Your task to perform on an android device: Open sound settings Image 0: 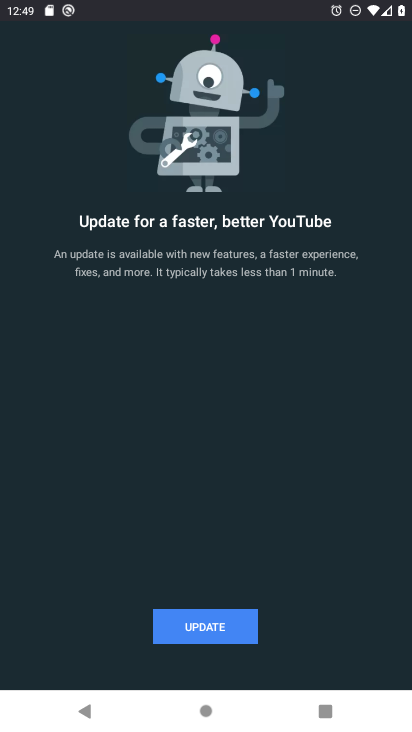
Step 0: press home button
Your task to perform on an android device: Open sound settings Image 1: 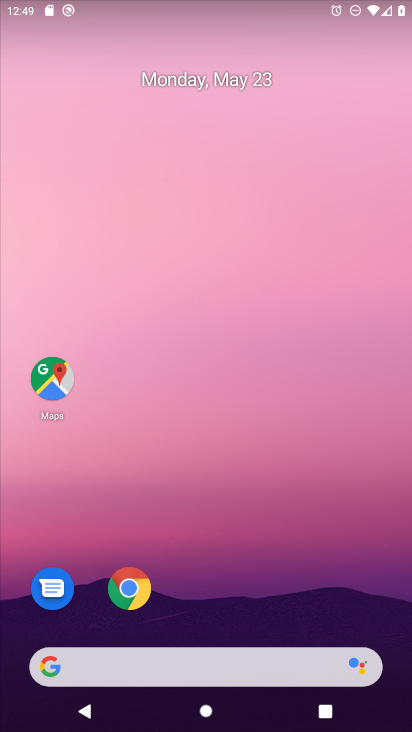
Step 1: drag from (277, 684) to (201, 145)
Your task to perform on an android device: Open sound settings Image 2: 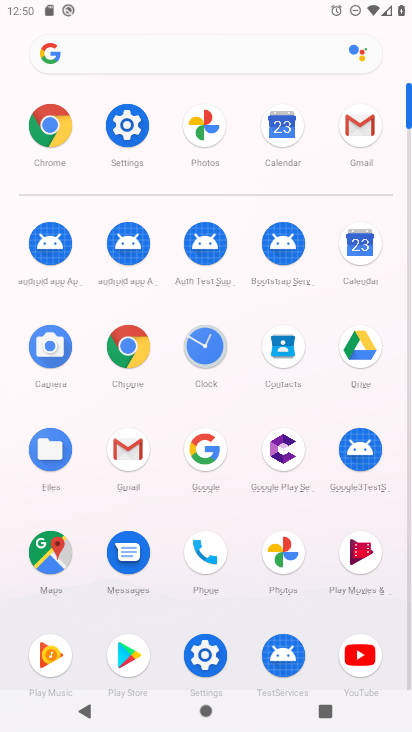
Step 2: click (202, 656)
Your task to perform on an android device: Open sound settings Image 3: 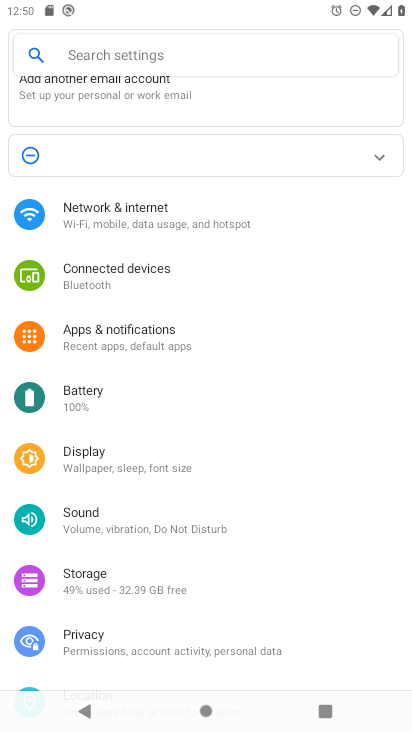
Step 3: click (113, 62)
Your task to perform on an android device: Open sound settings Image 4: 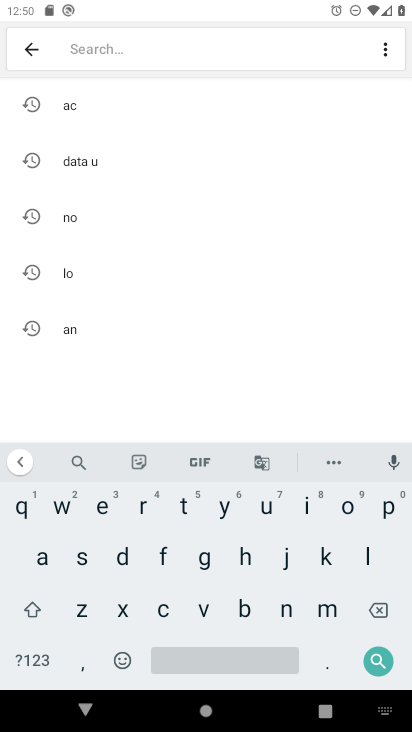
Step 4: click (79, 553)
Your task to perform on an android device: Open sound settings Image 5: 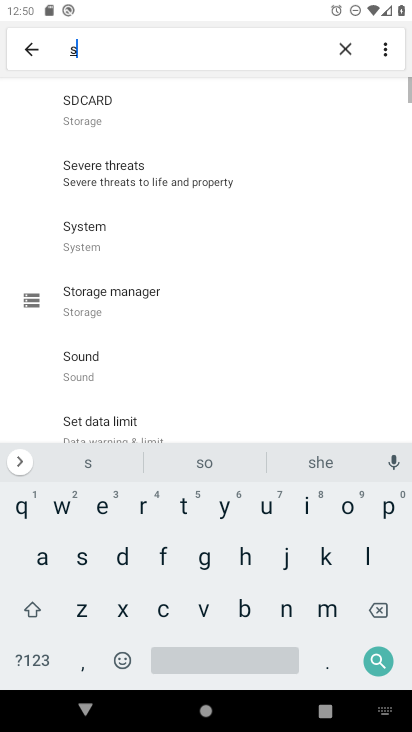
Step 5: click (348, 508)
Your task to perform on an android device: Open sound settings Image 6: 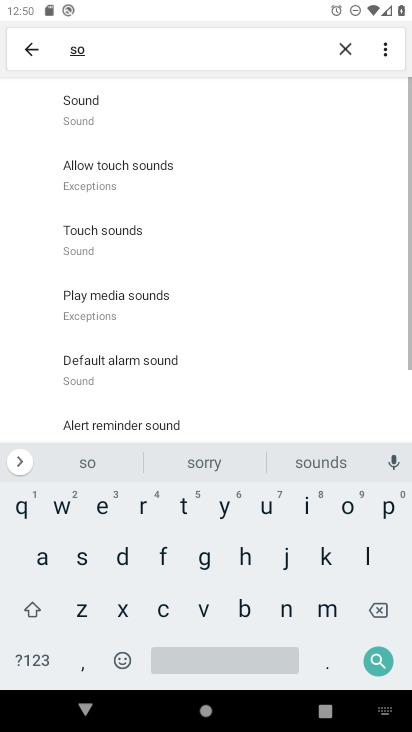
Step 6: click (130, 110)
Your task to perform on an android device: Open sound settings Image 7: 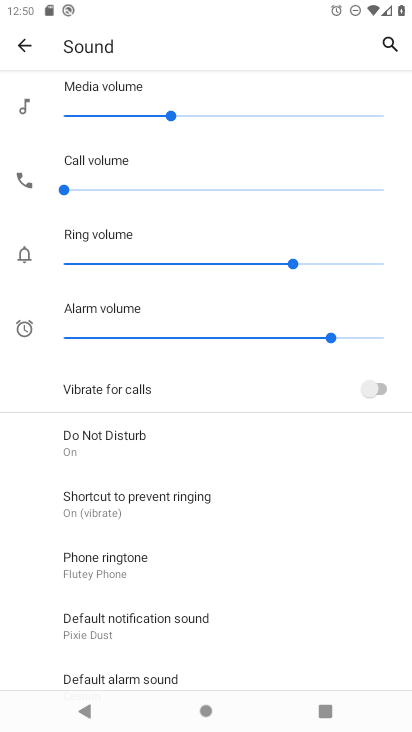
Step 7: task complete